Your task to perform on an android device: open wifi settings Image 0: 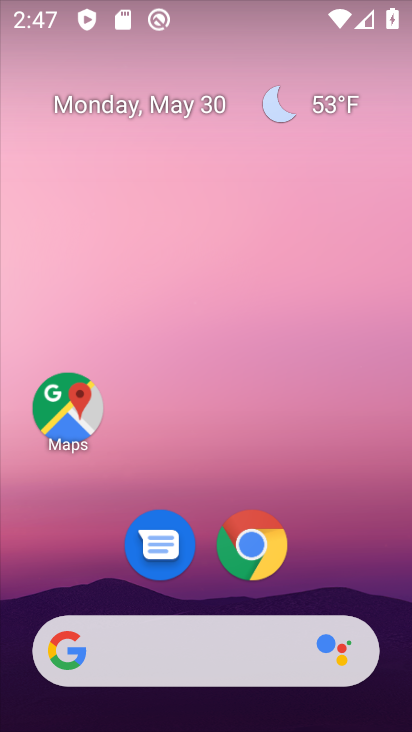
Step 0: drag from (234, 608) to (149, 85)
Your task to perform on an android device: open wifi settings Image 1: 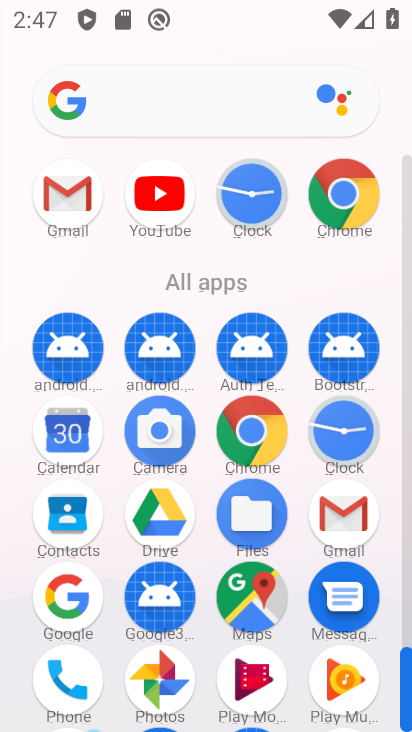
Step 1: drag from (107, 577) to (110, 106)
Your task to perform on an android device: open wifi settings Image 2: 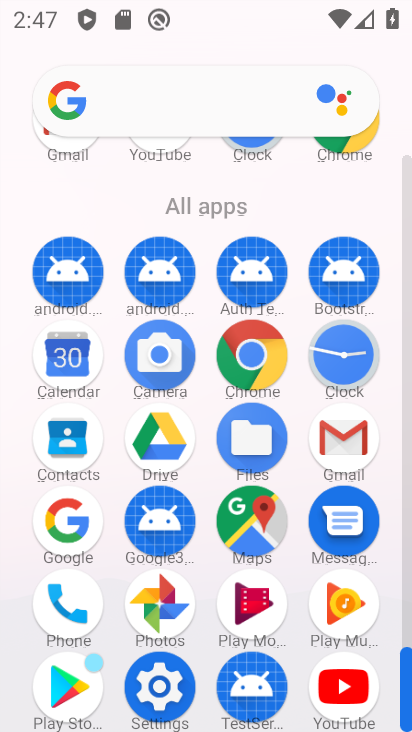
Step 2: click (154, 686)
Your task to perform on an android device: open wifi settings Image 3: 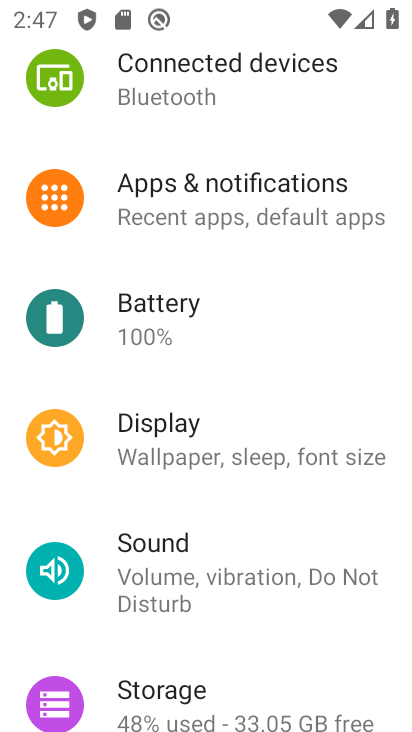
Step 3: drag from (216, 264) to (183, 697)
Your task to perform on an android device: open wifi settings Image 4: 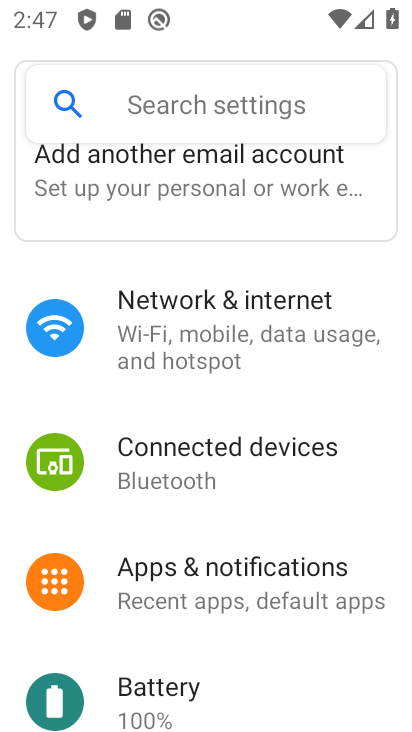
Step 4: click (280, 330)
Your task to perform on an android device: open wifi settings Image 5: 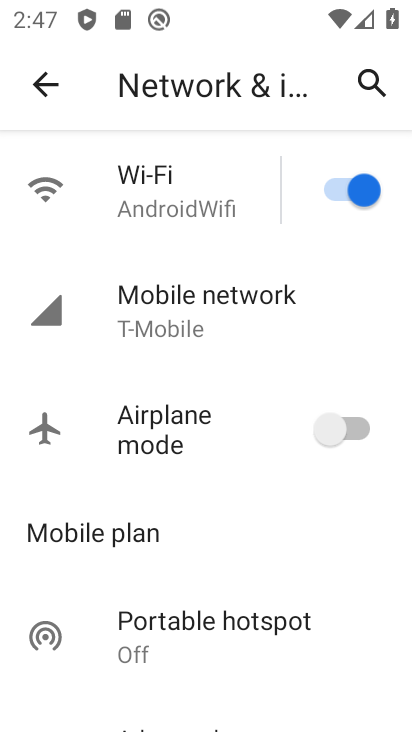
Step 5: click (200, 203)
Your task to perform on an android device: open wifi settings Image 6: 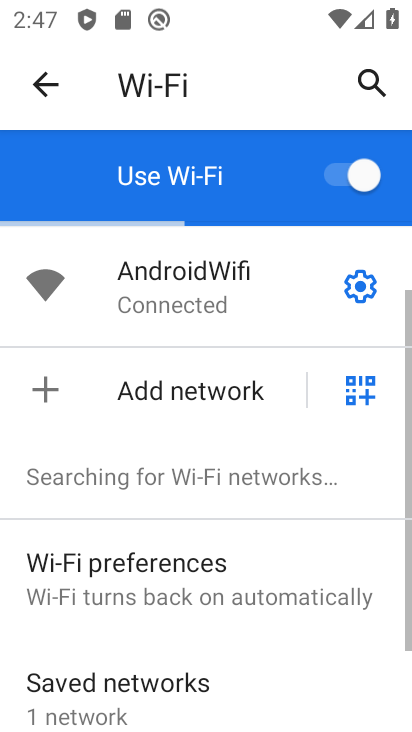
Step 6: task complete